Your task to perform on an android device: manage bookmarks in the chrome app Image 0: 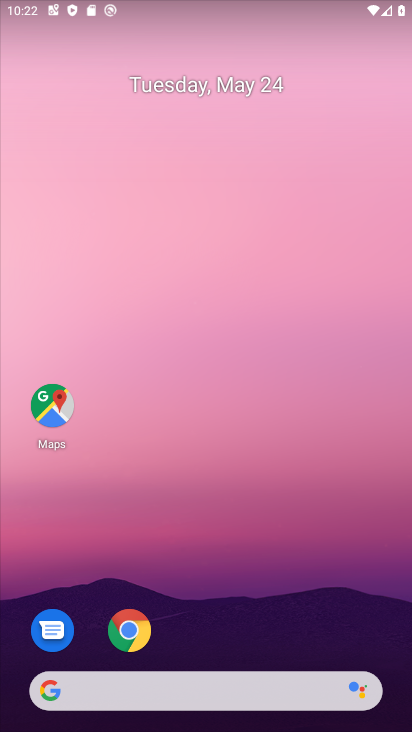
Step 0: press home button
Your task to perform on an android device: manage bookmarks in the chrome app Image 1: 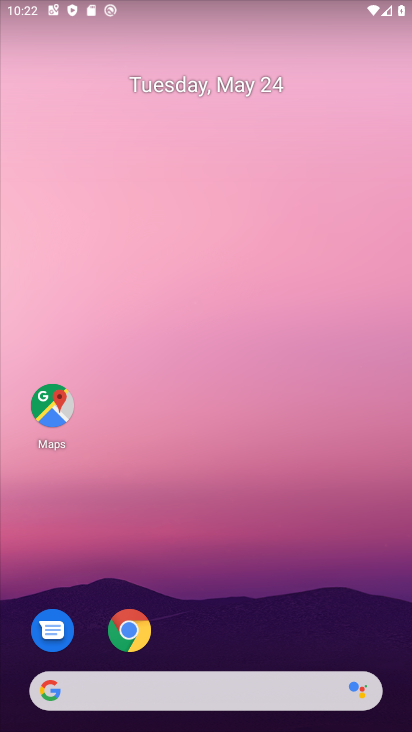
Step 1: click (130, 622)
Your task to perform on an android device: manage bookmarks in the chrome app Image 2: 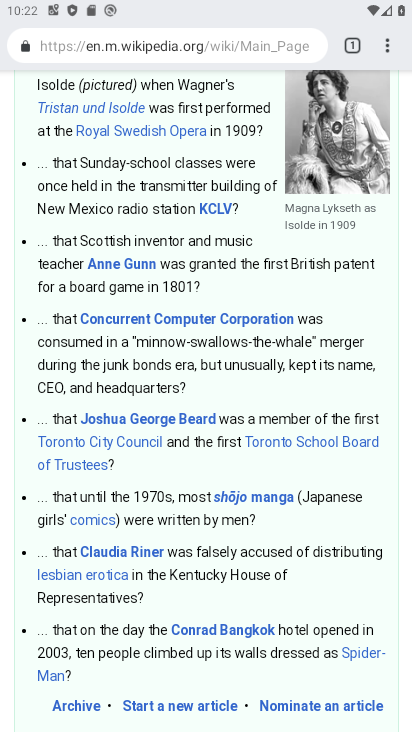
Step 2: click (387, 37)
Your task to perform on an android device: manage bookmarks in the chrome app Image 3: 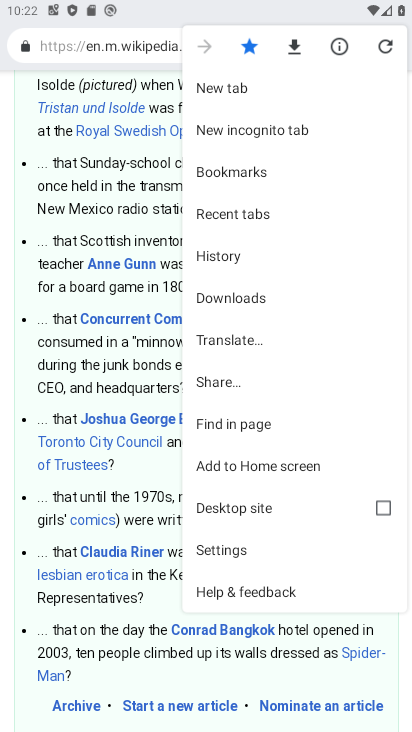
Step 3: click (274, 164)
Your task to perform on an android device: manage bookmarks in the chrome app Image 4: 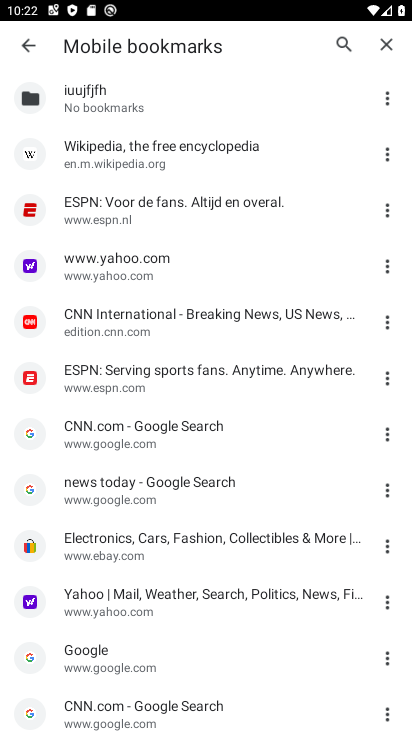
Step 4: click (389, 210)
Your task to perform on an android device: manage bookmarks in the chrome app Image 5: 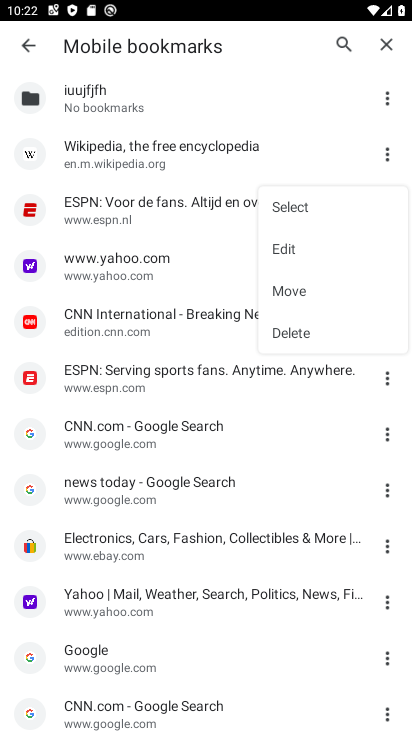
Step 5: click (299, 332)
Your task to perform on an android device: manage bookmarks in the chrome app Image 6: 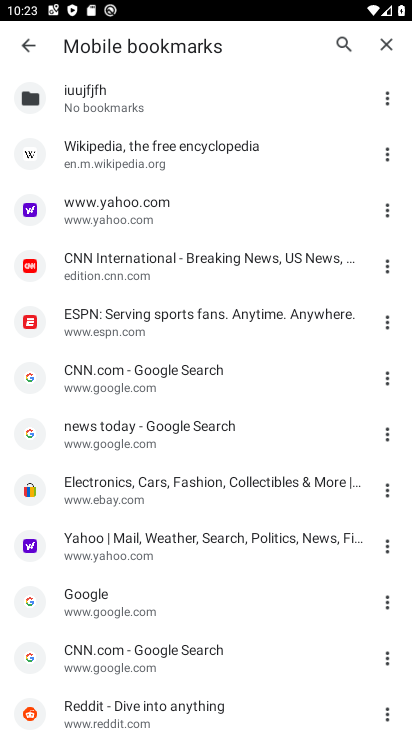
Step 6: task complete